Your task to perform on an android device: turn on the 12-hour format for clock Image 0: 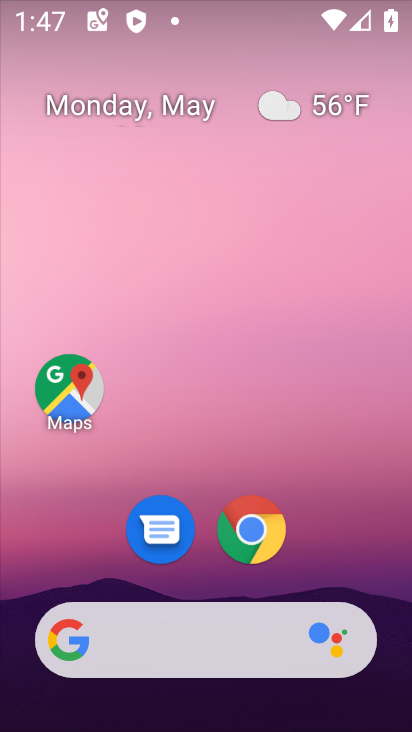
Step 0: drag from (316, 572) to (326, 56)
Your task to perform on an android device: turn on the 12-hour format for clock Image 1: 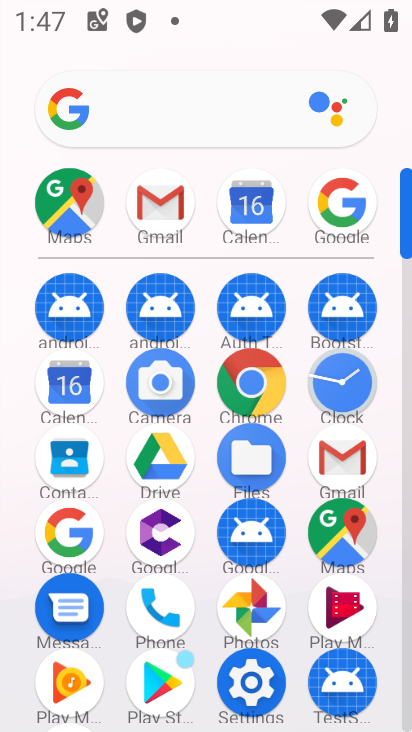
Step 1: click (348, 383)
Your task to perform on an android device: turn on the 12-hour format for clock Image 2: 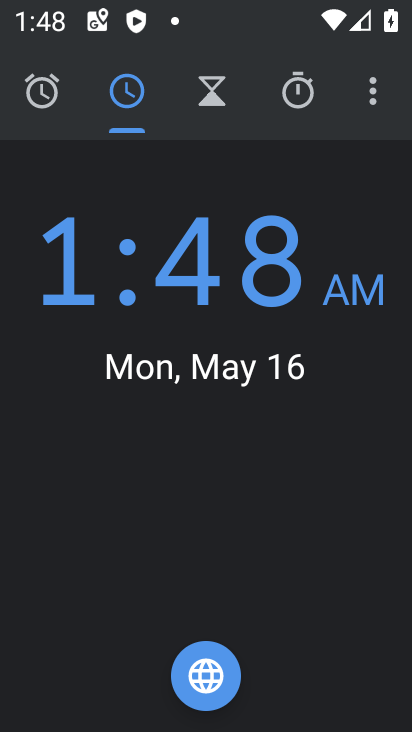
Step 2: click (369, 105)
Your task to perform on an android device: turn on the 12-hour format for clock Image 3: 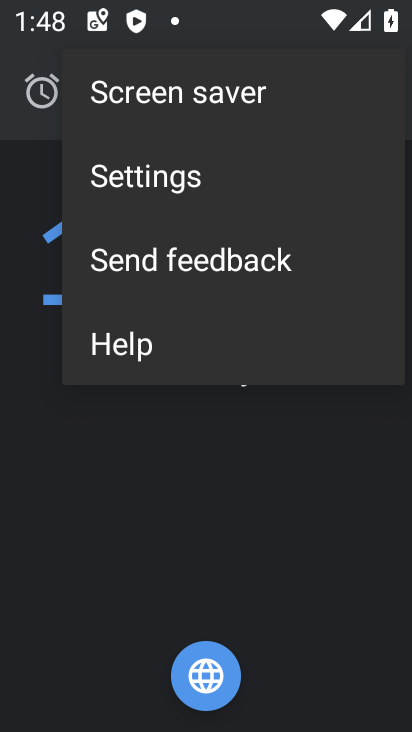
Step 3: click (211, 185)
Your task to perform on an android device: turn on the 12-hour format for clock Image 4: 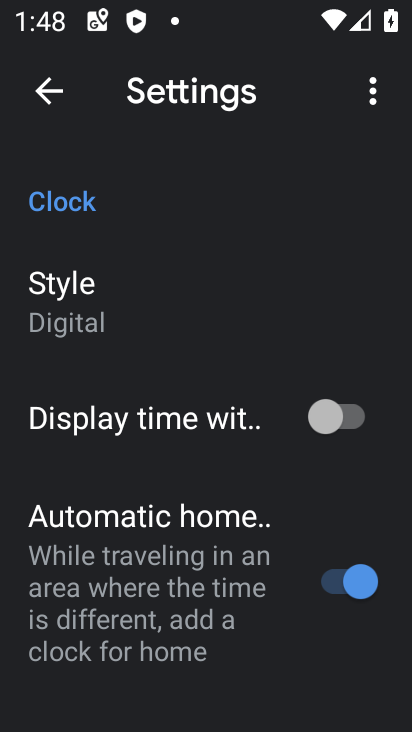
Step 4: drag from (150, 642) to (230, 379)
Your task to perform on an android device: turn on the 12-hour format for clock Image 5: 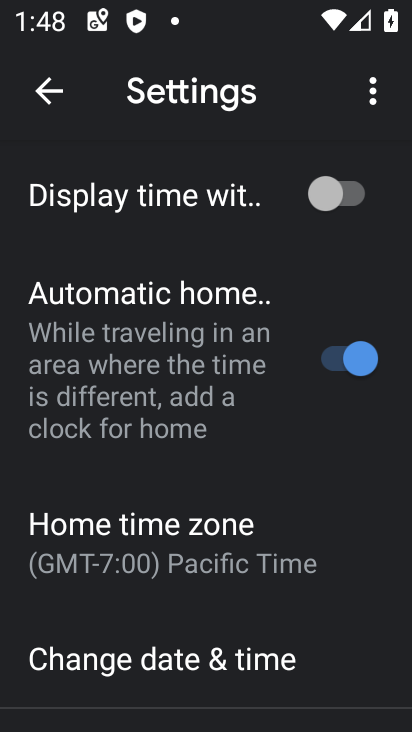
Step 5: click (159, 667)
Your task to perform on an android device: turn on the 12-hour format for clock Image 6: 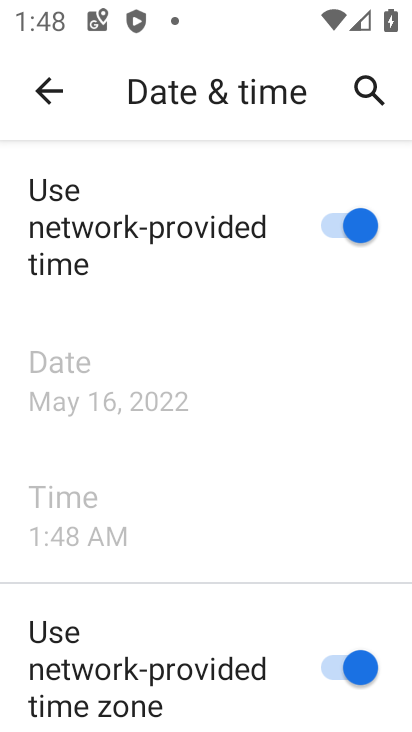
Step 6: task complete